Your task to perform on an android device: check storage Image 0: 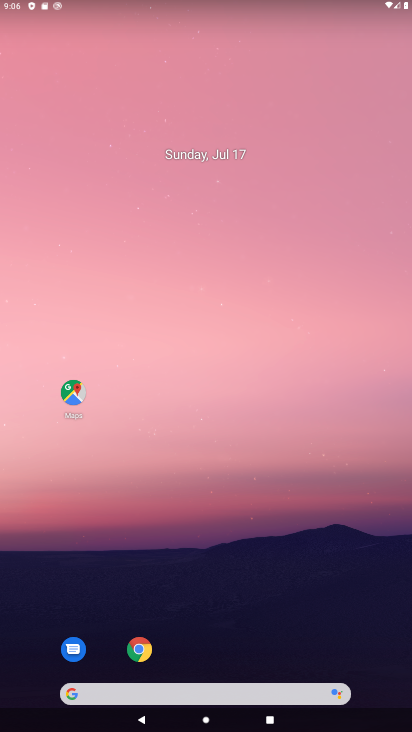
Step 0: click (356, 26)
Your task to perform on an android device: check storage Image 1: 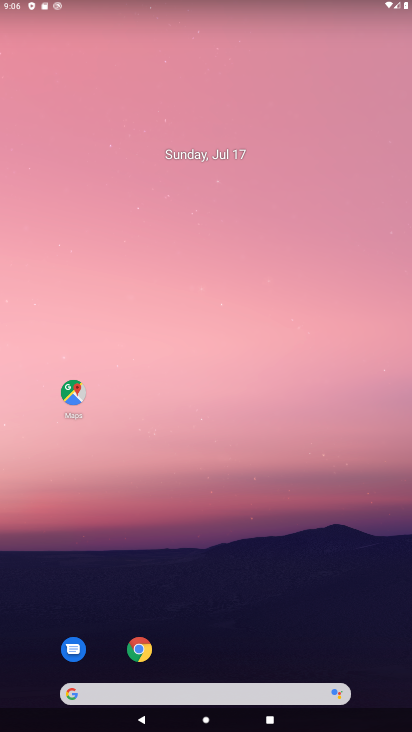
Step 1: drag from (204, 339) to (274, 118)
Your task to perform on an android device: check storage Image 2: 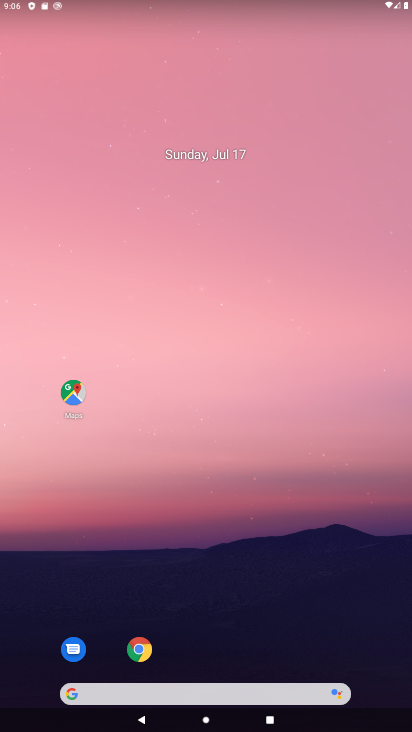
Step 2: drag from (31, 692) to (298, 118)
Your task to perform on an android device: check storage Image 3: 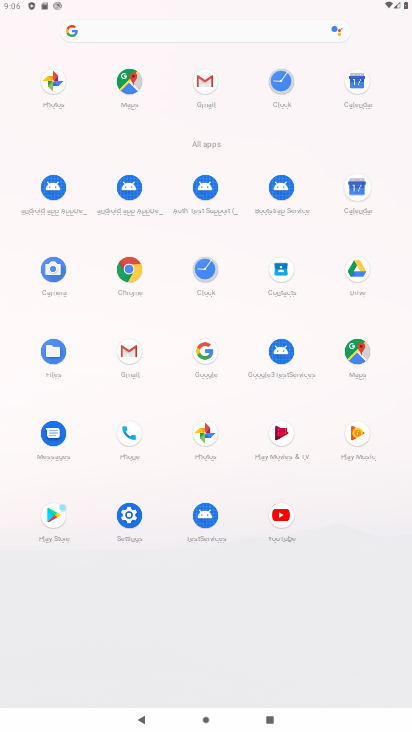
Step 3: click (140, 515)
Your task to perform on an android device: check storage Image 4: 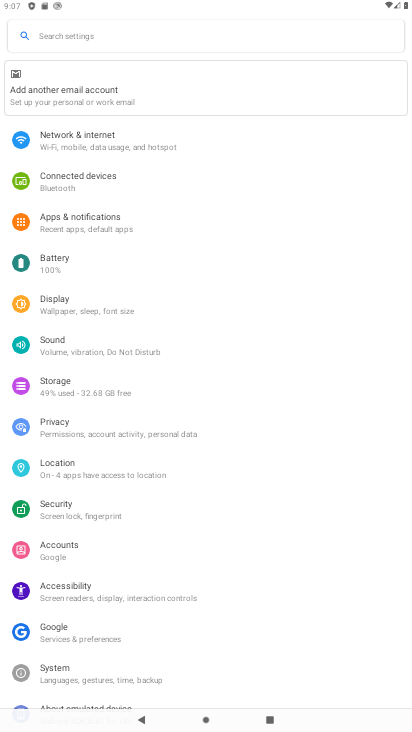
Step 4: click (74, 390)
Your task to perform on an android device: check storage Image 5: 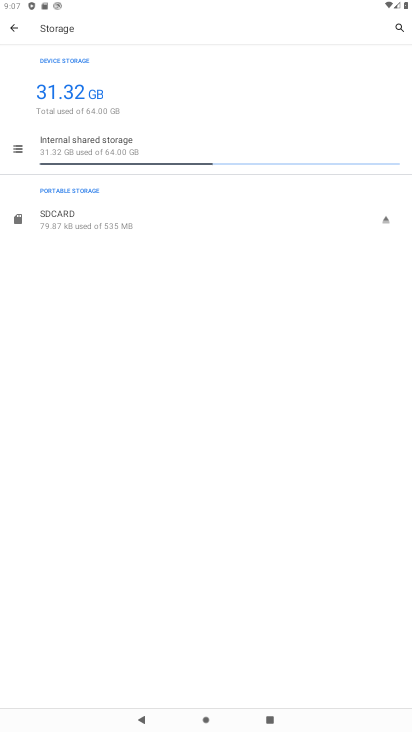
Step 5: task complete